Your task to perform on an android device: View the shopping cart on bestbuy. Search for "logitech g910" on bestbuy, select the first entry, add it to the cart, then select checkout. Image 0: 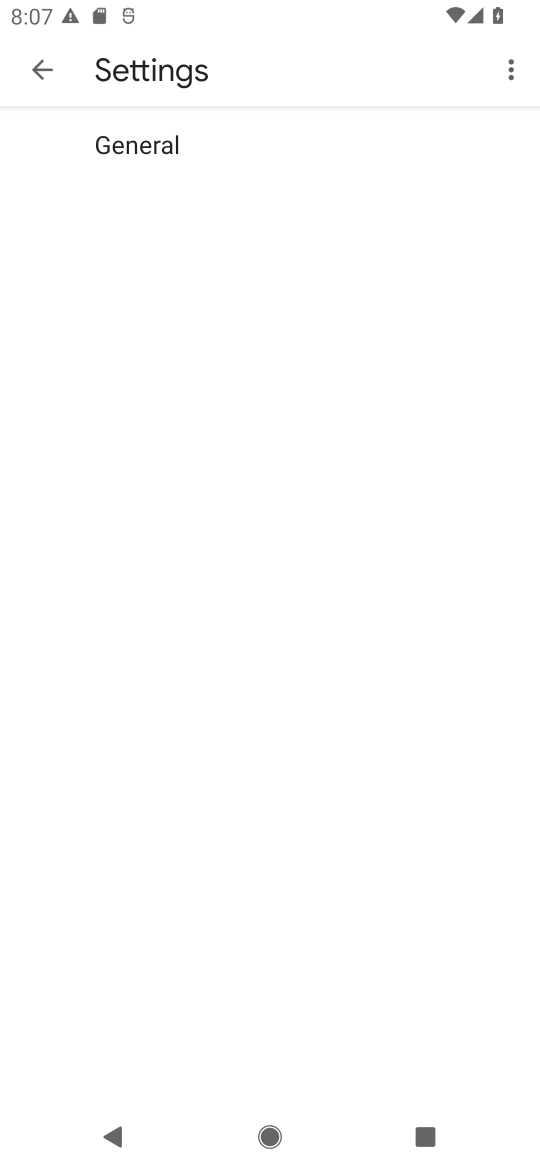
Step 0: press home button
Your task to perform on an android device: View the shopping cart on bestbuy. Search for "logitech g910" on bestbuy, select the first entry, add it to the cart, then select checkout. Image 1: 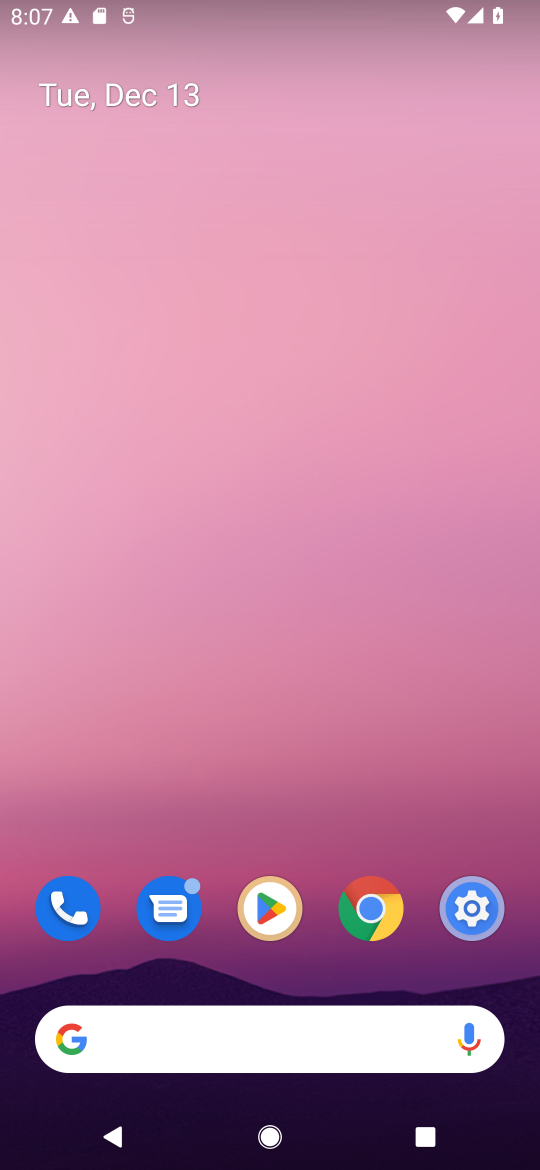
Step 1: click (118, 1041)
Your task to perform on an android device: View the shopping cart on bestbuy. Search for "logitech g910" on bestbuy, select the first entry, add it to the cart, then select checkout. Image 2: 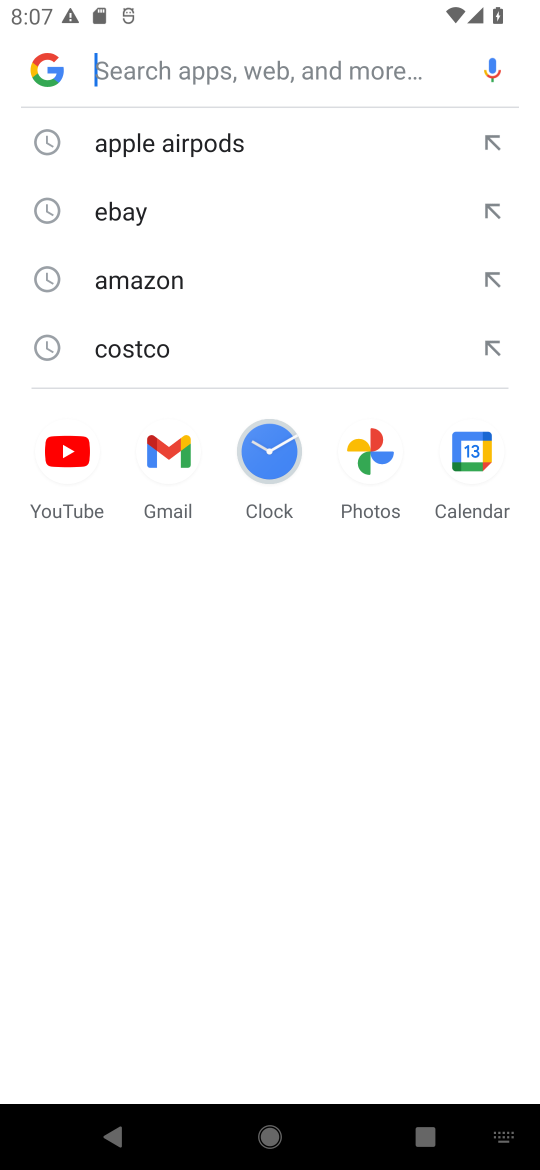
Step 2: type "bestbuy"
Your task to perform on an android device: View the shopping cart on bestbuy. Search for "logitech g910" on bestbuy, select the first entry, add it to the cart, then select checkout. Image 3: 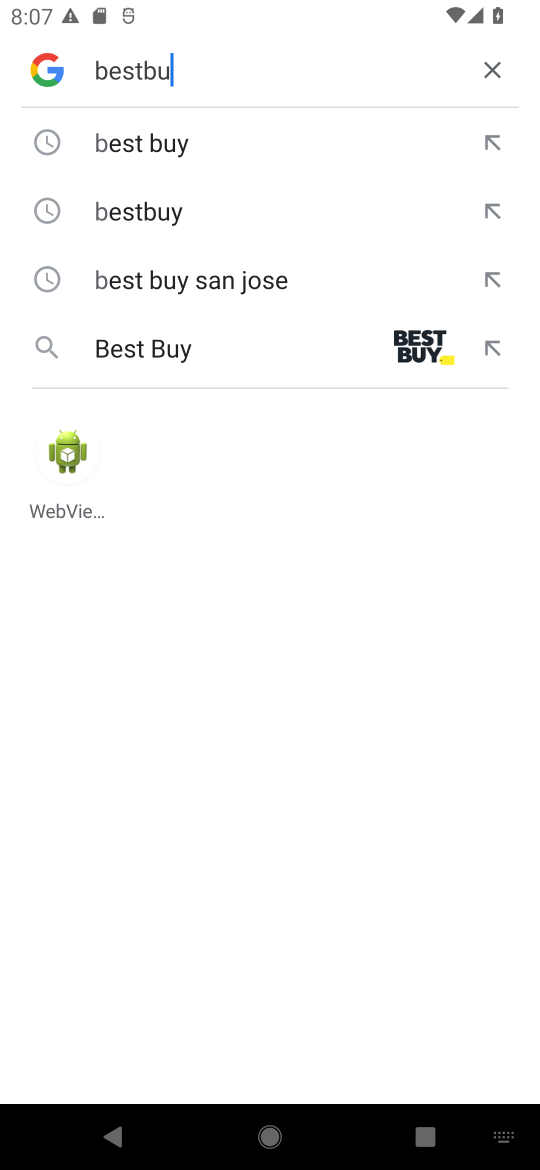
Step 3: press enter
Your task to perform on an android device: View the shopping cart on bestbuy. Search for "logitech g910" on bestbuy, select the first entry, add it to the cart, then select checkout. Image 4: 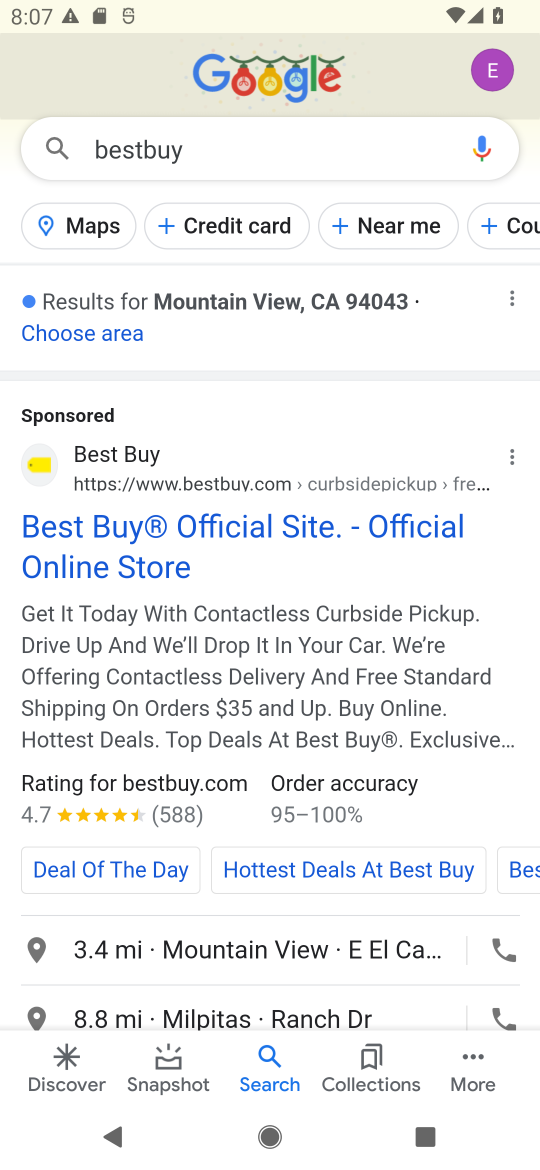
Step 4: click (84, 532)
Your task to perform on an android device: View the shopping cart on bestbuy. Search for "logitech g910" on bestbuy, select the first entry, add it to the cart, then select checkout. Image 5: 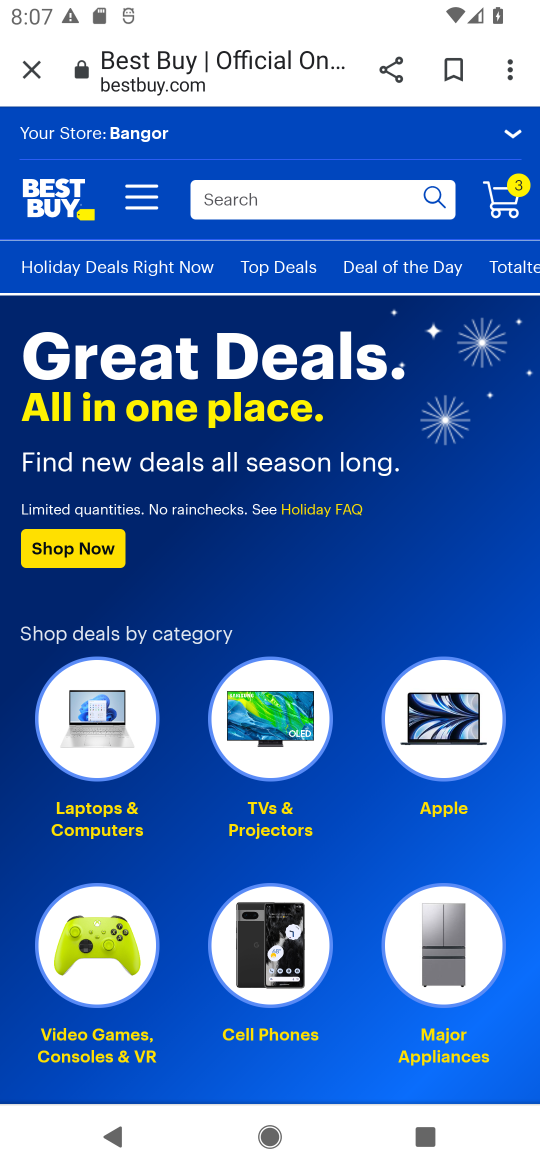
Step 5: click (502, 183)
Your task to perform on an android device: View the shopping cart on bestbuy. Search for "logitech g910" on bestbuy, select the first entry, add it to the cart, then select checkout. Image 6: 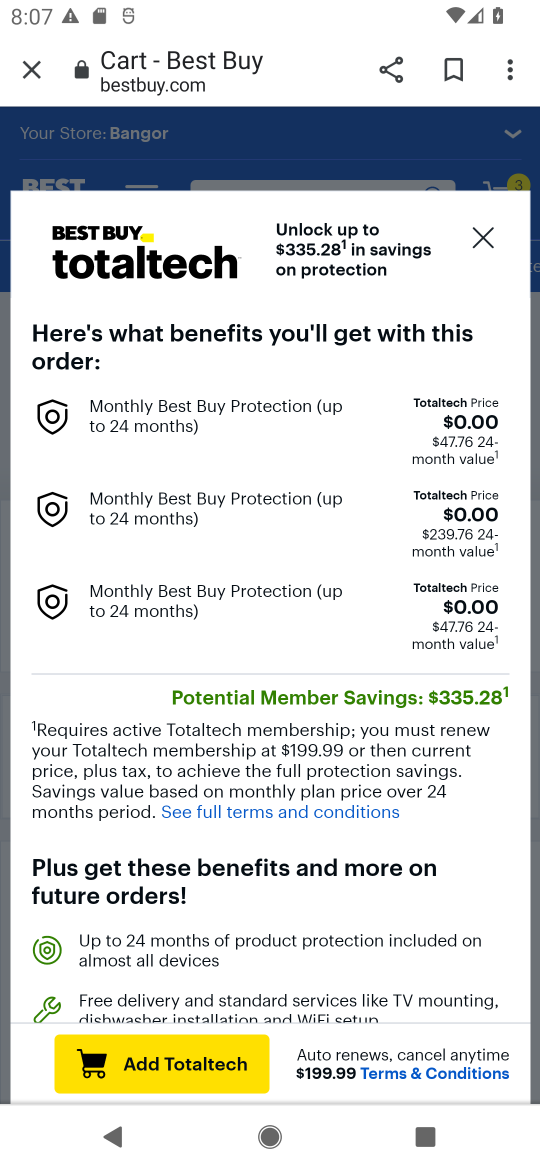
Step 6: click (481, 232)
Your task to perform on an android device: View the shopping cart on bestbuy. Search for "logitech g910" on bestbuy, select the first entry, add it to the cart, then select checkout. Image 7: 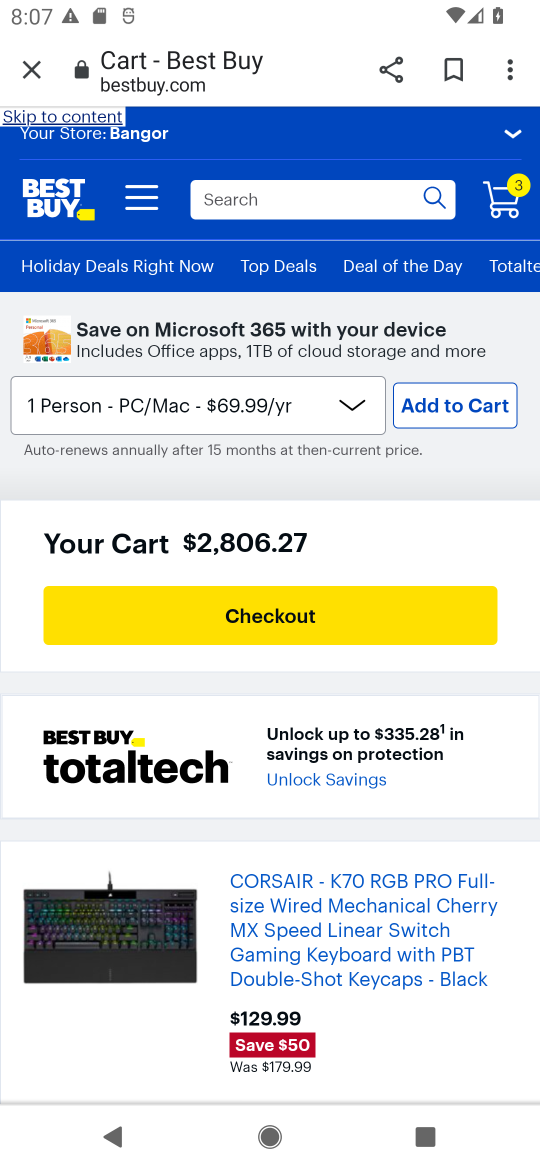
Step 7: click (250, 199)
Your task to perform on an android device: View the shopping cart on bestbuy. Search for "logitech g910" on bestbuy, select the first entry, add it to the cart, then select checkout. Image 8: 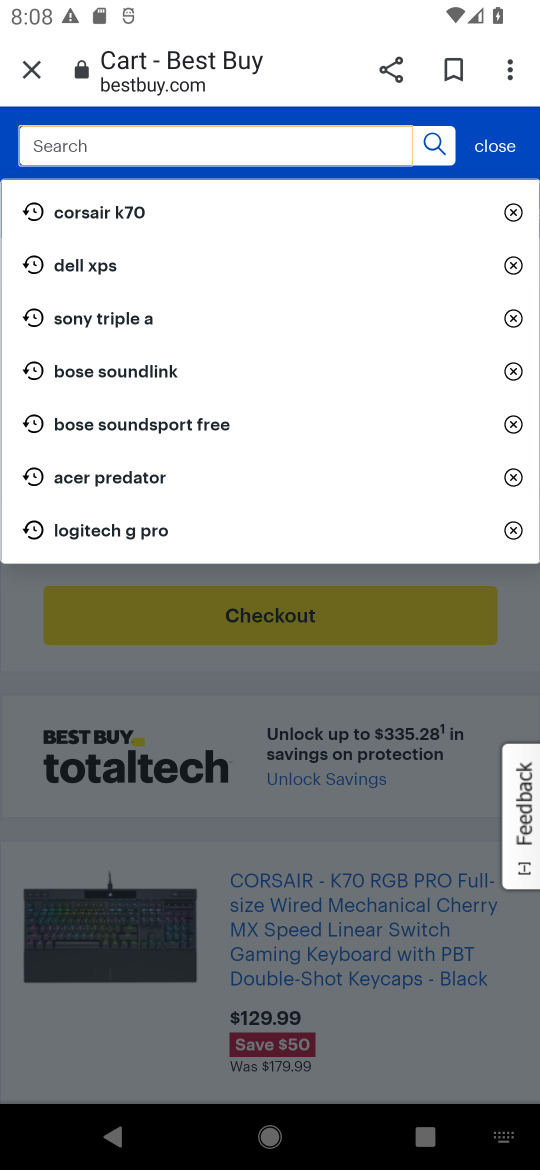
Step 8: press enter
Your task to perform on an android device: View the shopping cart on bestbuy. Search for "logitech g910" on bestbuy, select the first entry, add it to the cart, then select checkout. Image 9: 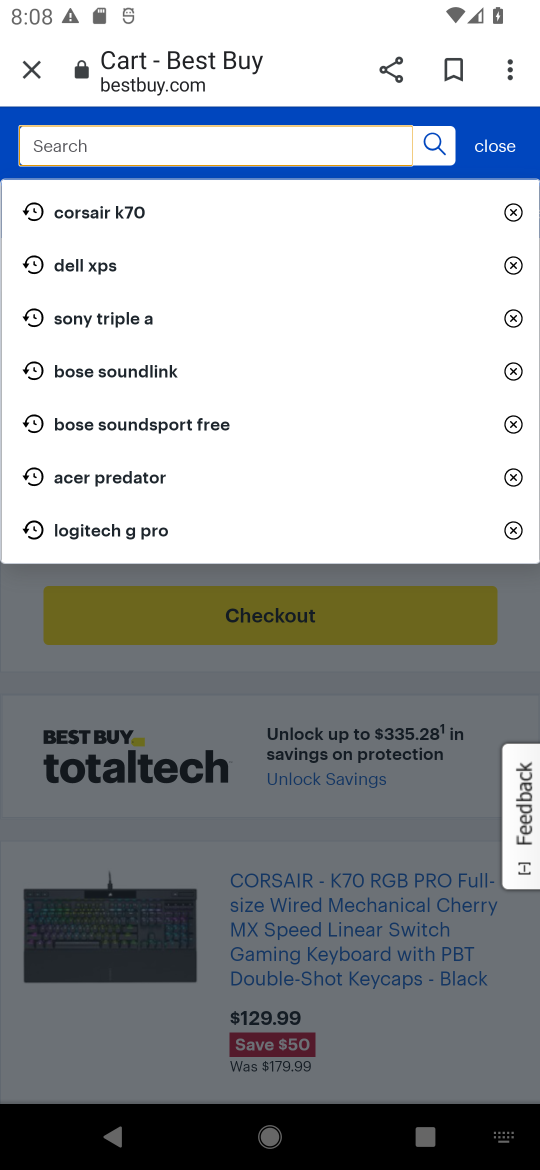
Step 9: type "logitech g910"
Your task to perform on an android device: View the shopping cart on bestbuy. Search for "logitech g910" on bestbuy, select the first entry, add it to the cart, then select checkout. Image 10: 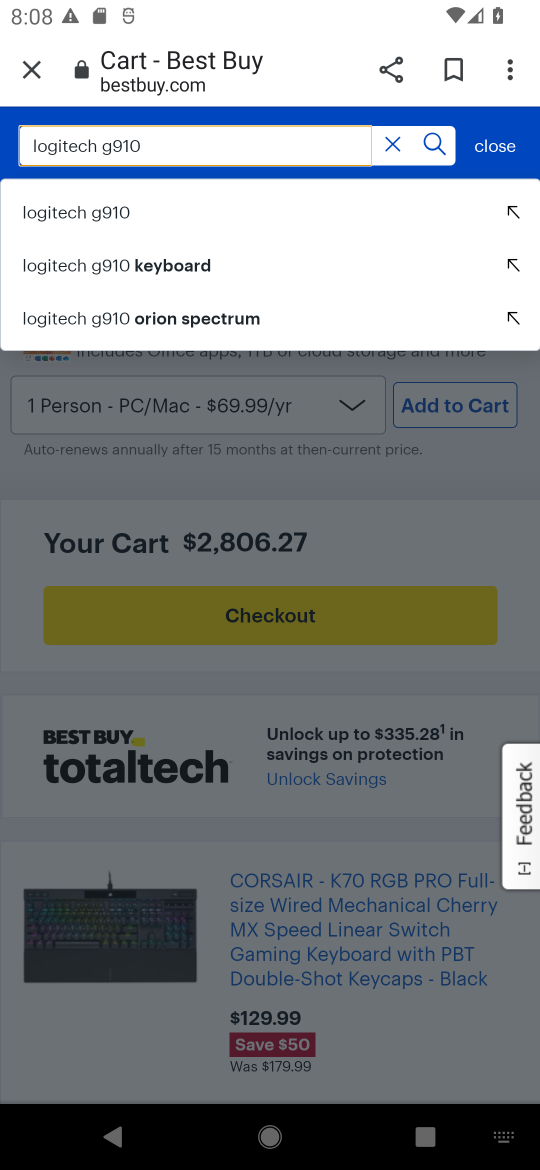
Step 10: press enter
Your task to perform on an android device: View the shopping cart on bestbuy. Search for "logitech g910" on bestbuy, select the first entry, add it to the cart, then select checkout. Image 11: 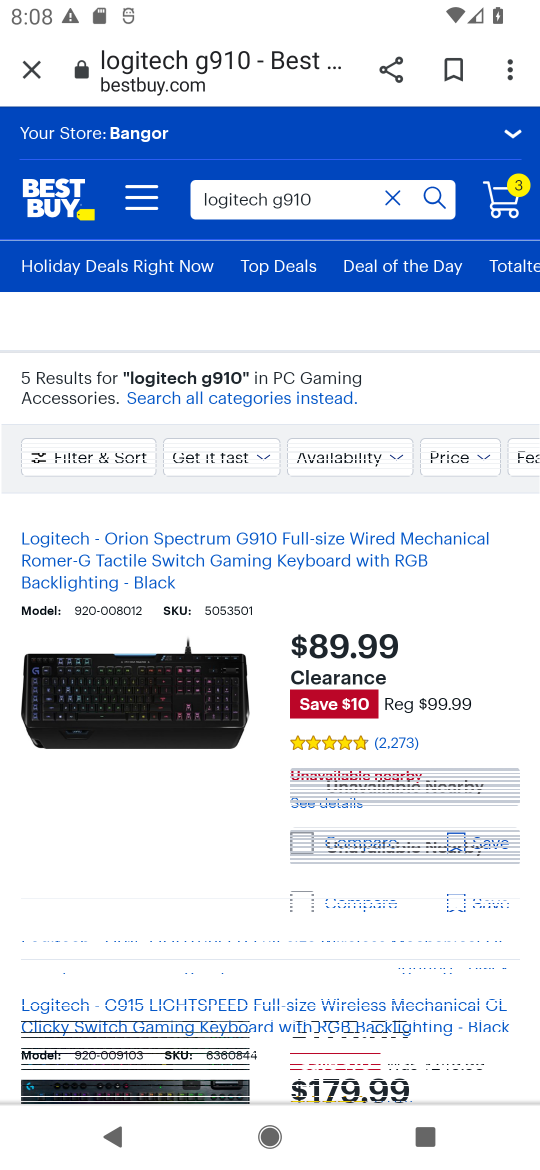
Step 11: task complete